Your task to perform on an android device: clear history in the chrome app Image 0: 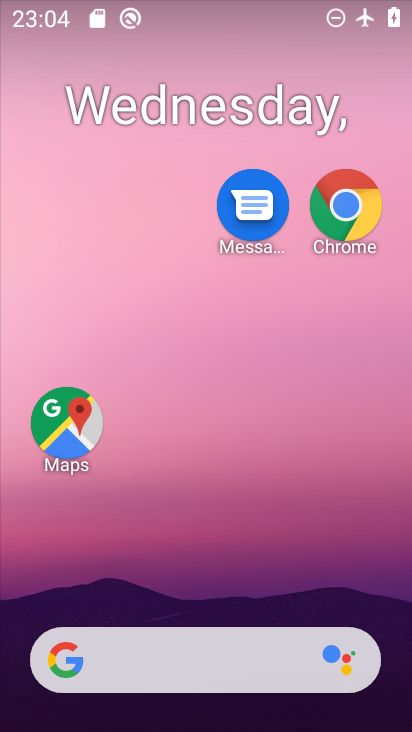
Step 0: drag from (140, 625) to (252, 149)
Your task to perform on an android device: clear history in the chrome app Image 1: 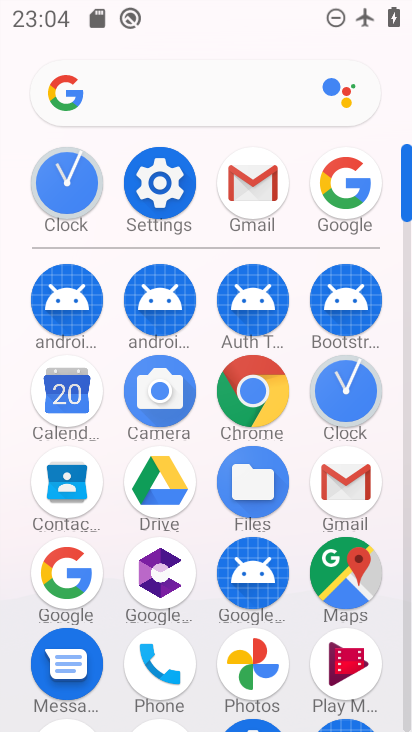
Step 1: click (152, 195)
Your task to perform on an android device: clear history in the chrome app Image 2: 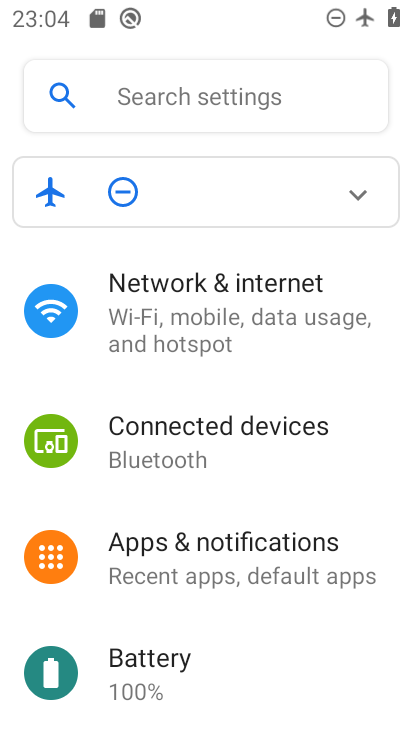
Step 2: press home button
Your task to perform on an android device: clear history in the chrome app Image 3: 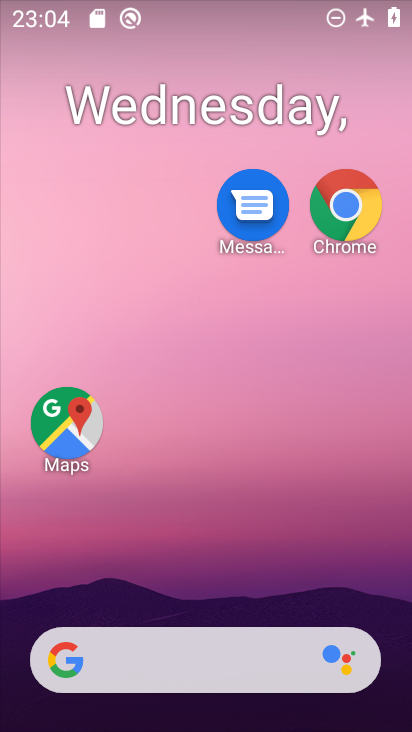
Step 3: click (345, 194)
Your task to perform on an android device: clear history in the chrome app Image 4: 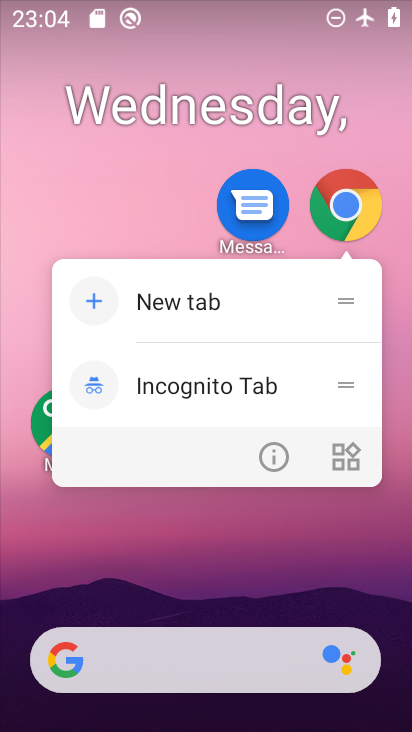
Step 4: click (277, 463)
Your task to perform on an android device: clear history in the chrome app Image 5: 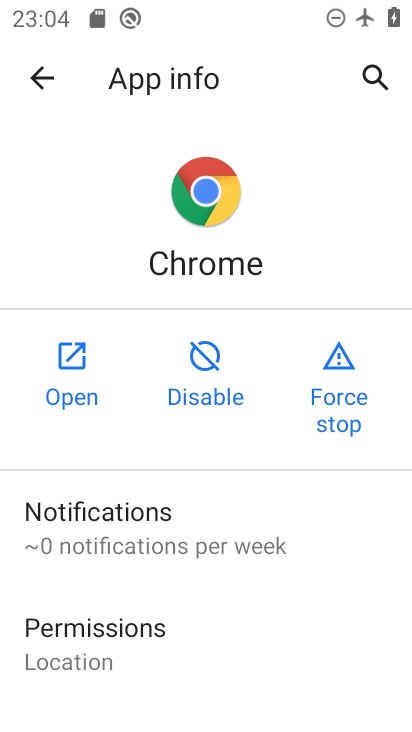
Step 5: click (84, 386)
Your task to perform on an android device: clear history in the chrome app Image 6: 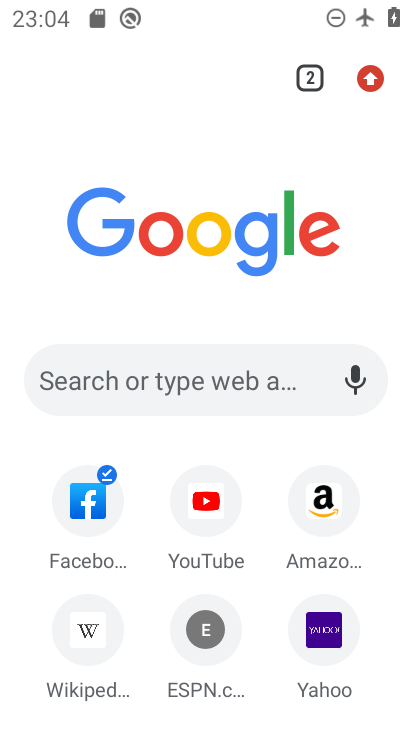
Step 6: drag from (264, 636) to (269, 316)
Your task to perform on an android device: clear history in the chrome app Image 7: 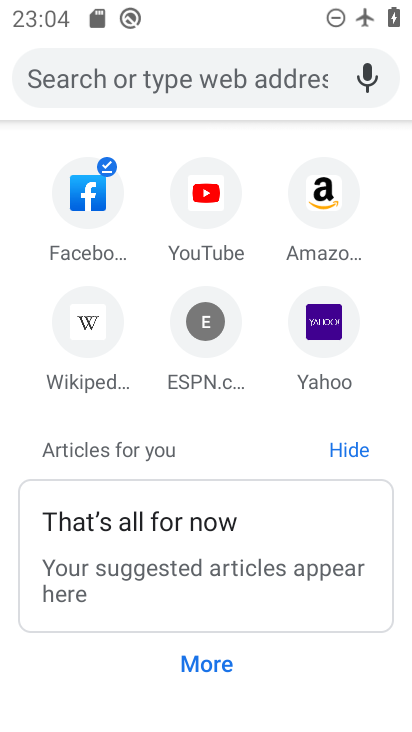
Step 7: drag from (288, 183) to (288, 535)
Your task to perform on an android device: clear history in the chrome app Image 8: 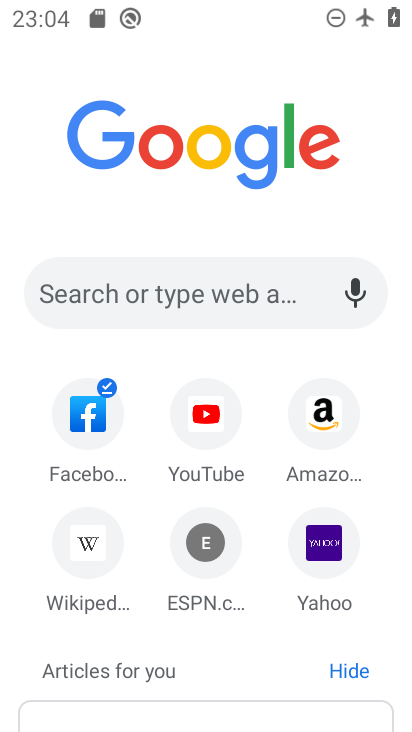
Step 8: drag from (338, 164) to (350, 444)
Your task to perform on an android device: clear history in the chrome app Image 9: 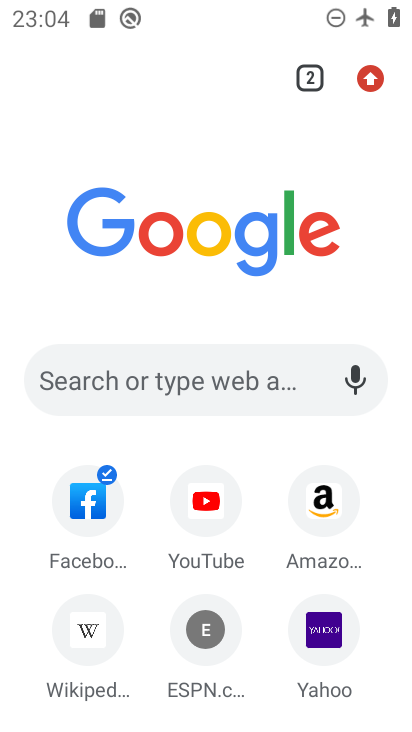
Step 9: click (385, 85)
Your task to perform on an android device: clear history in the chrome app Image 10: 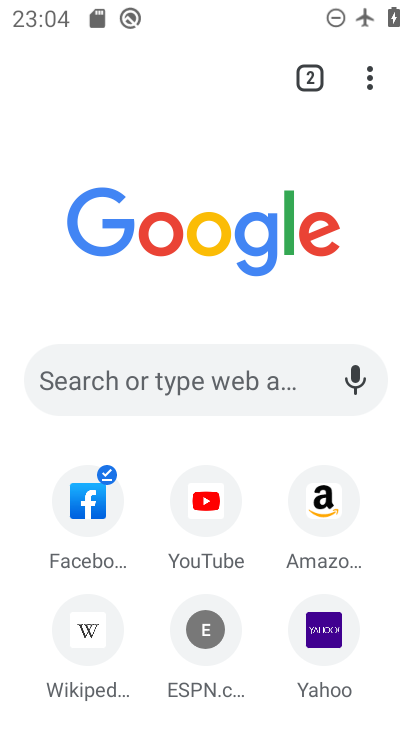
Step 10: click (383, 79)
Your task to perform on an android device: clear history in the chrome app Image 11: 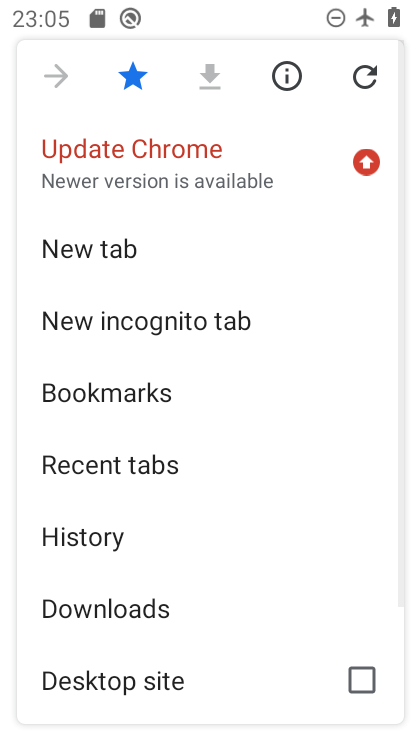
Step 11: drag from (179, 654) to (186, 192)
Your task to perform on an android device: clear history in the chrome app Image 12: 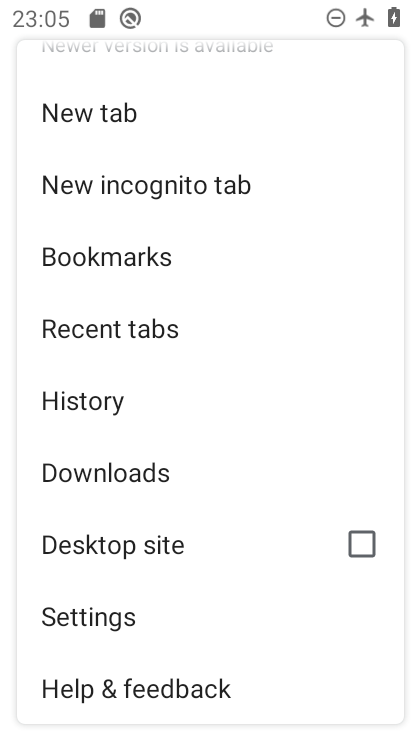
Step 12: drag from (183, 688) to (186, 285)
Your task to perform on an android device: clear history in the chrome app Image 13: 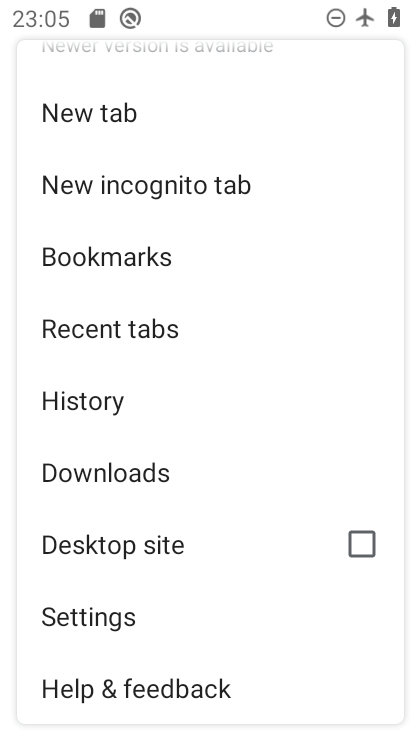
Step 13: click (151, 631)
Your task to perform on an android device: clear history in the chrome app Image 14: 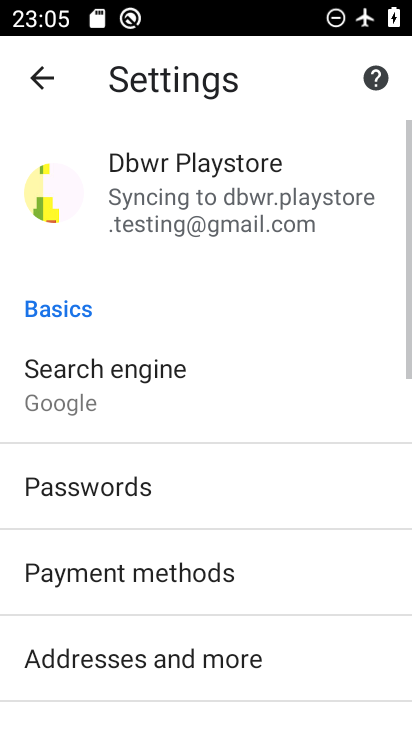
Step 14: click (40, 53)
Your task to perform on an android device: clear history in the chrome app Image 15: 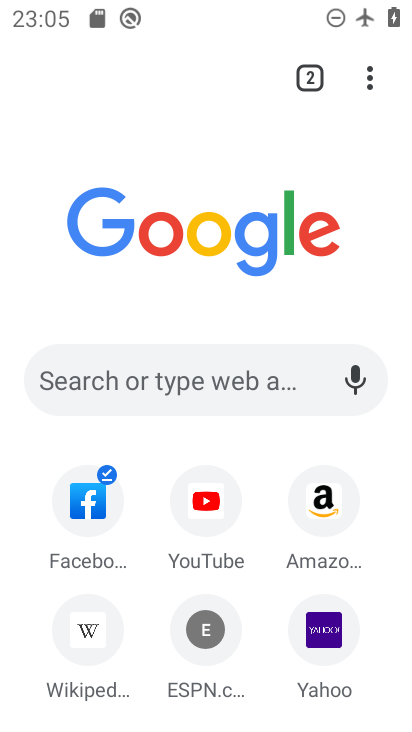
Step 15: click (379, 66)
Your task to perform on an android device: clear history in the chrome app Image 16: 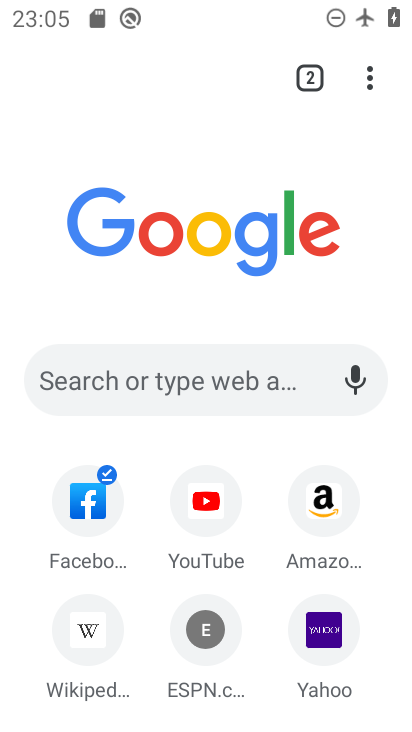
Step 16: drag from (374, 69) to (195, 399)
Your task to perform on an android device: clear history in the chrome app Image 17: 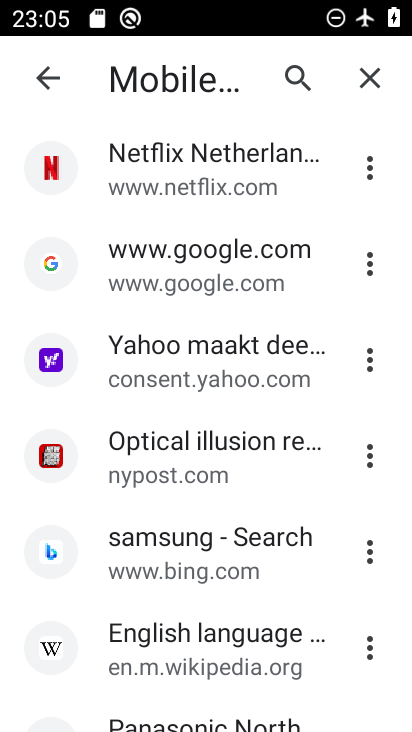
Step 17: click (361, 85)
Your task to perform on an android device: clear history in the chrome app Image 18: 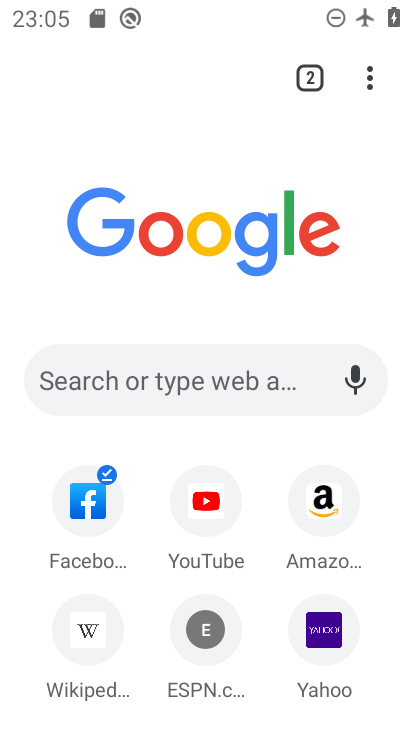
Step 18: drag from (362, 75) to (91, 523)
Your task to perform on an android device: clear history in the chrome app Image 19: 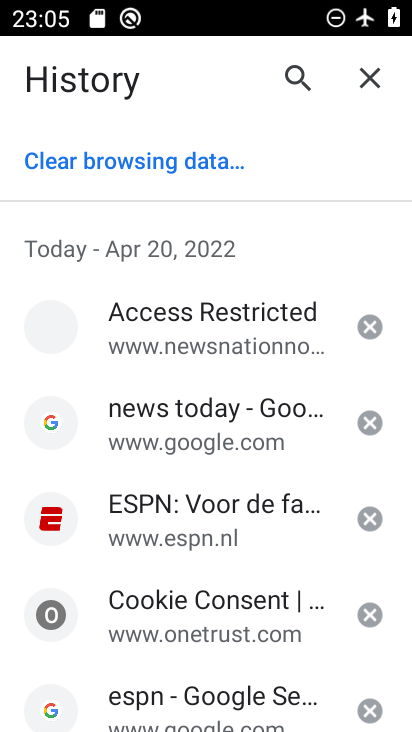
Step 19: click (140, 151)
Your task to perform on an android device: clear history in the chrome app Image 20: 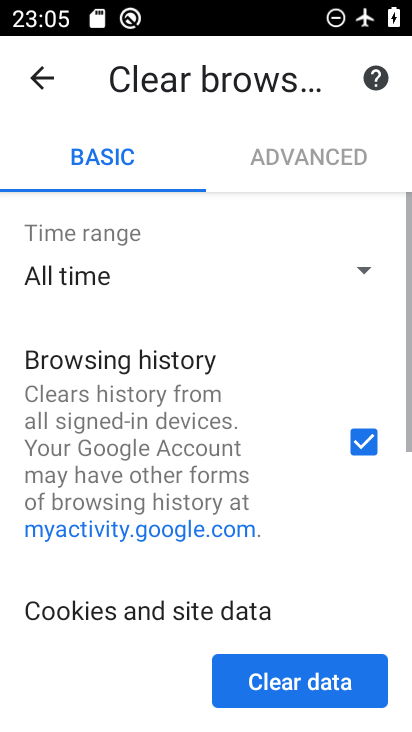
Step 20: click (276, 665)
Your task to perform on an android device: clear history in the chrome app Image 21: 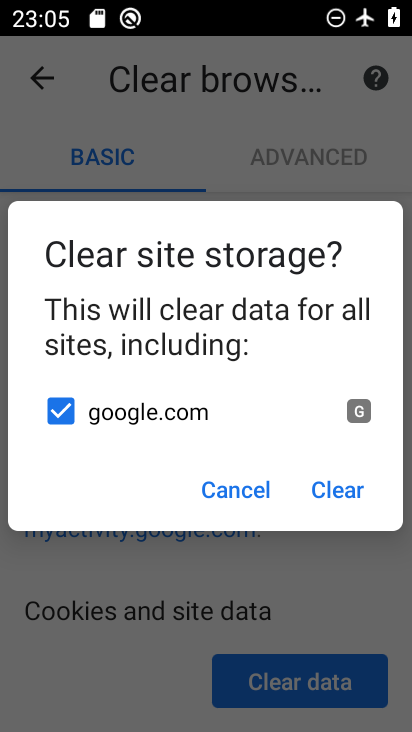
Step 21: click (324, 486)
Your task to perform on an android device: clear history in the chrome app Image 22: 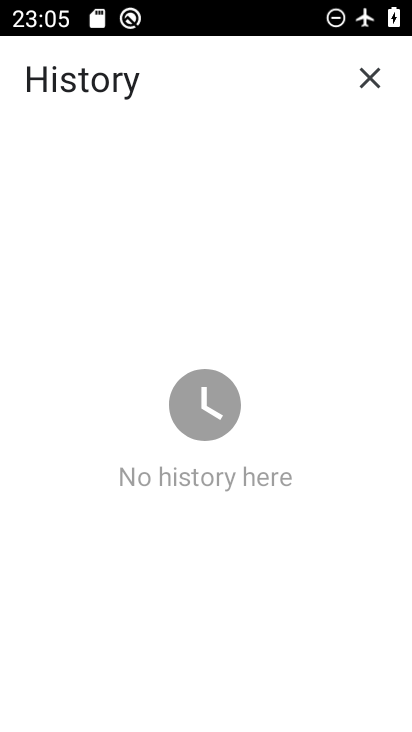
Step 22: task complete